Your task to perform on an android device: Open display settings Image 0: 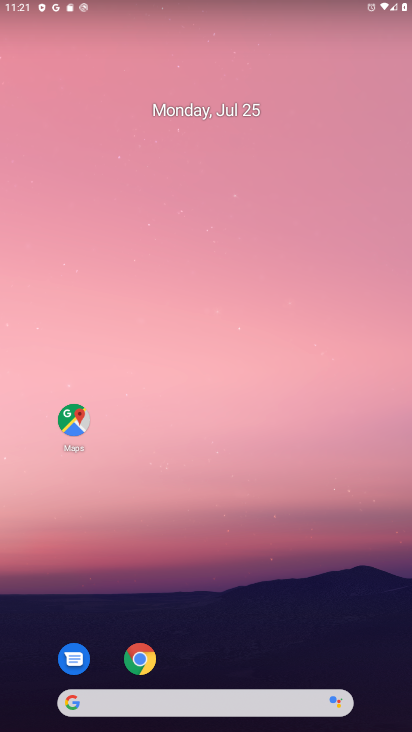
Step 0: drag from (260, 591) to (159, 65)
Your task to perform on an android device: Open display settings Image 1: 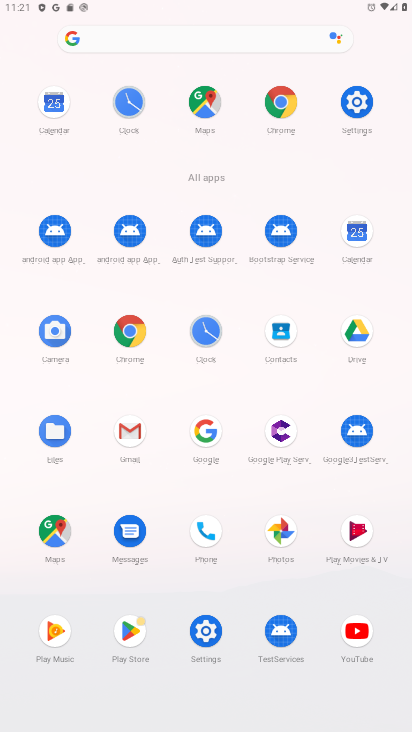
Step 1: click (354, 102)
Your task to perform on an android device: Open display settings Image 2: 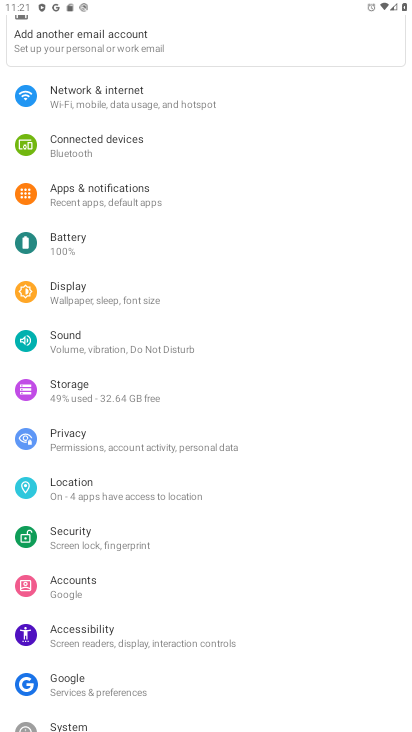
Step 2: click (47, 290)
Your task to perform on an android device: Open display settings Image 3: 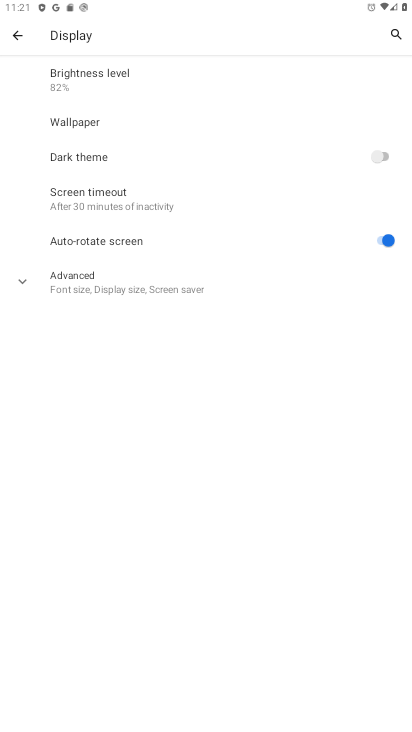
Step 3: task complete